Your task to perform on an android device: Search for seafood restaurants on Google Maps Image 0: 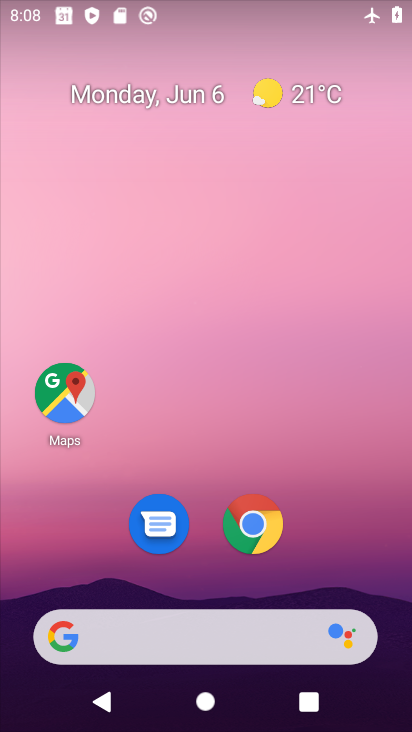
Step 0: click (68, 399)
Your task to perform on an android device: Search for seafood restaurants on Google Maps Image 1: 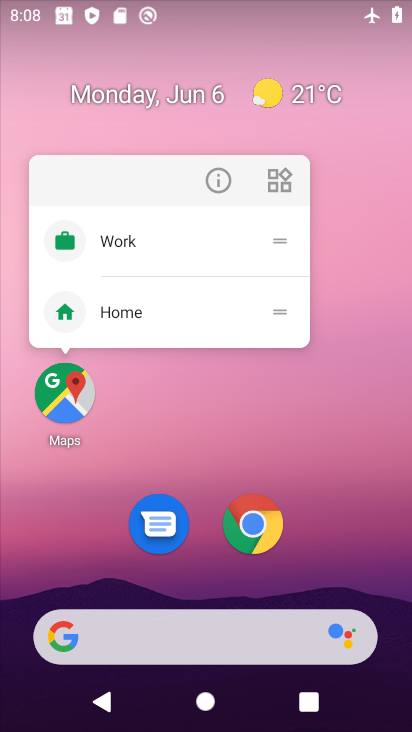
Step 1: click (68, 401)
Your task to perform on an android device: Search for seafood restaurants on Google Maps Image 2: 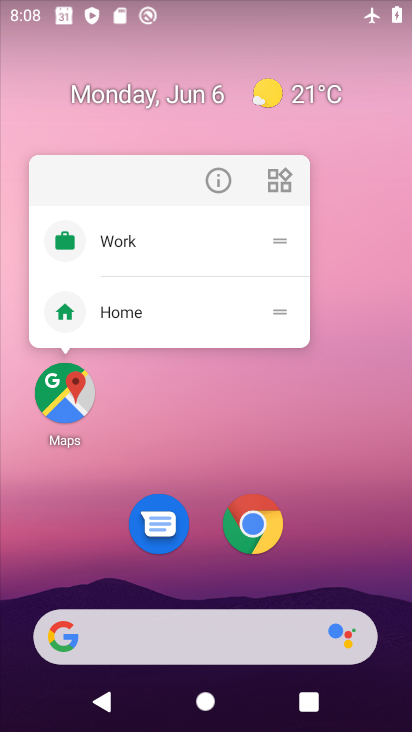
Step 2: click (68, 401)
Your task to perform on an android device: Search for seafood restaurants on Google Maps Image 3: 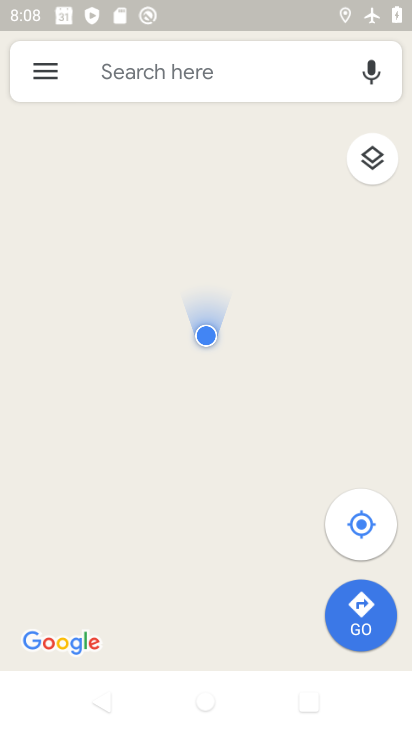
Step 3: click (199, 76)
Your task to perform on an android device: Search for seafood restaurants on Google Maps Image 4: 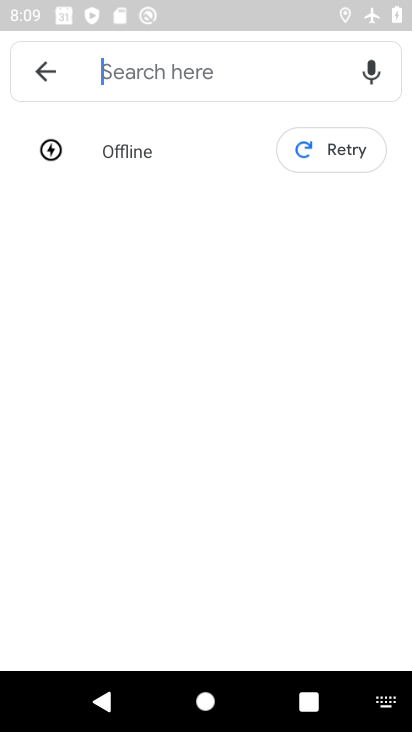
Step 4: task complete